Your task to perform on an android device: Go to privacy settings Image 0: 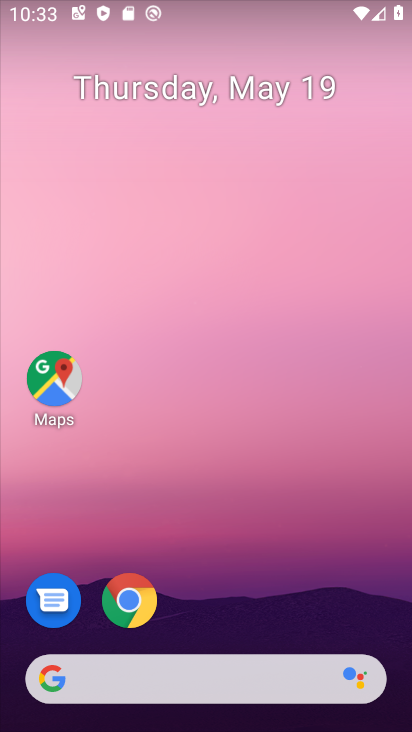
Step 0: press home button
Your task to perform on an android device: Go to privacy settings Image 1: 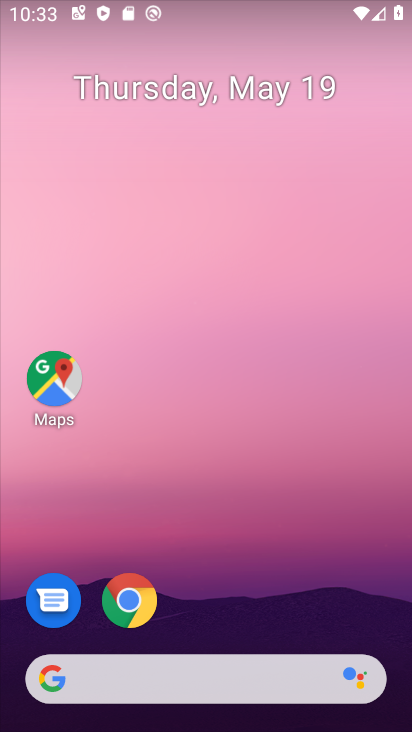
Step 1: drag from (326, 634) to (347, 238)
Your task to perform on an android device: Go to privacy settings Image 2: 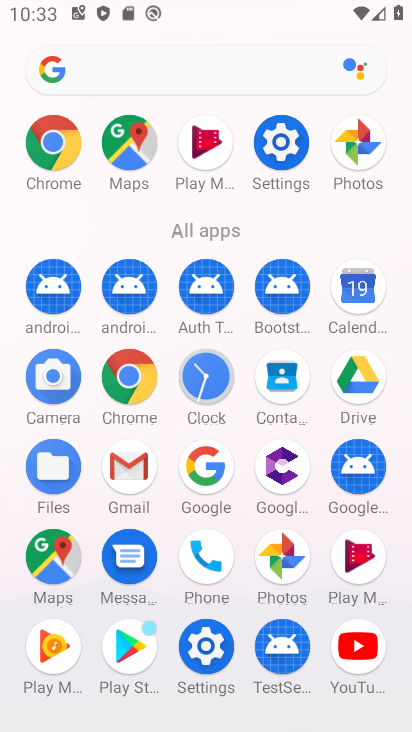
Step 2: click (185, 644)
Your task to perform on an android device: Go to privacy settings Image 3: 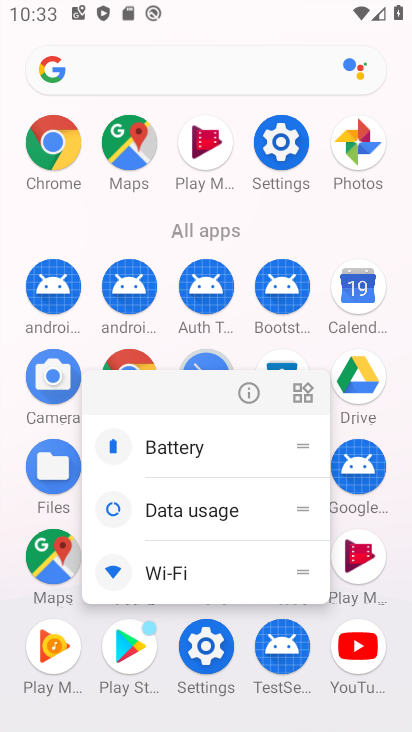
Step 3: click (213, 644)
Your task to perform on an android device: Go to privacy settings Image 4: 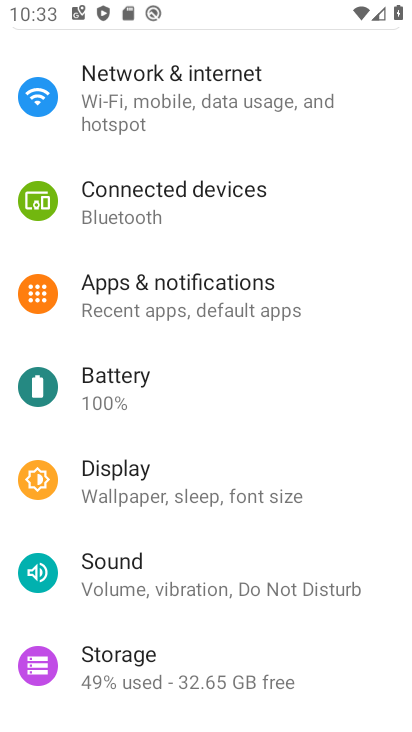
Step 4: drag from (186, 568) to (203, 201)
Your task to perform on an android device: Go to privacy settings Image 5: 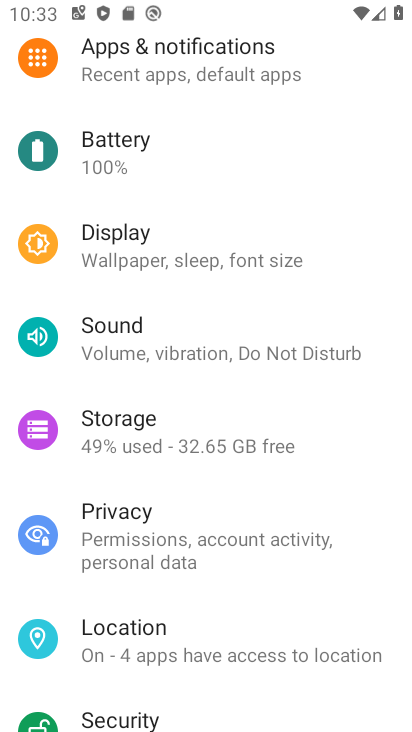
Step 5: click (164, 489)
Your task to perform on an android device: Go to privacy settings Image 6: 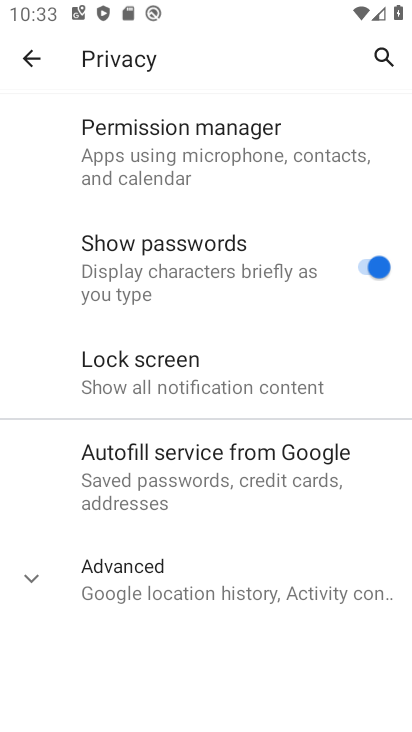
Step 6: task complete